Your task to perform on an android device: Open Android settings Image 0: 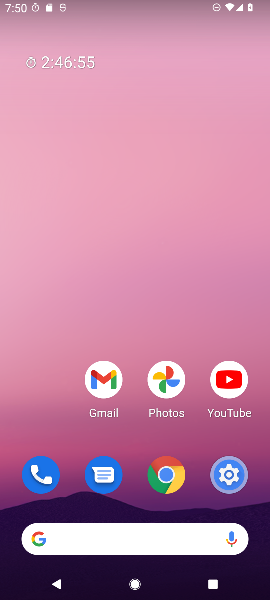
Step 0: press home button
Your task to perform on an android device: Open Android settings Image 1: 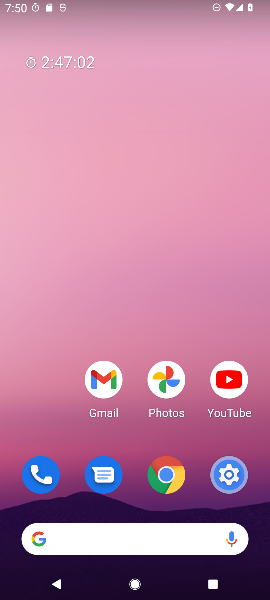
Step 1: drag from (54, 417) to (84, 98)
Your task to perform on an android device: Open Android settings Image 2: 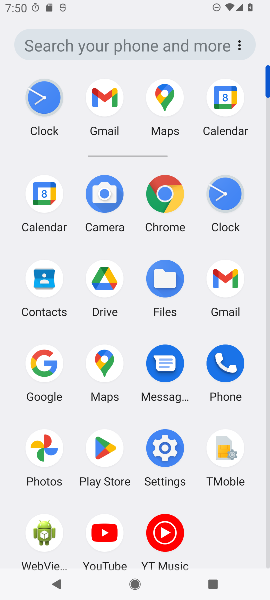
Step 2: click (173, 454)
Your task to perform on an android device: Open Android settings Image 3: 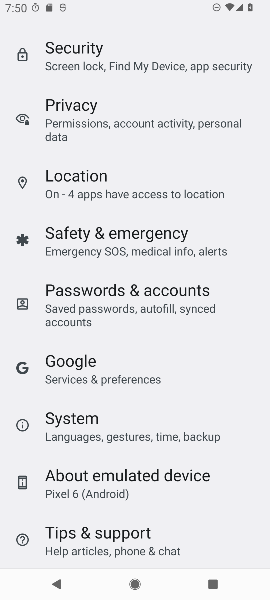
Step 3: drag from (243, 323) to (243, 374)
Your task to perform on an android device: Open Android settings Image 4: 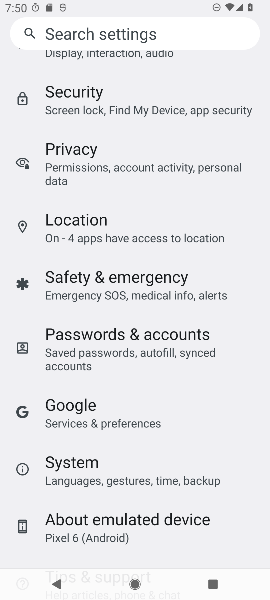
Step 4: drag from (240, 289) to (242, 350)
Your task to perform on an android device: Open Android settings Image 5: 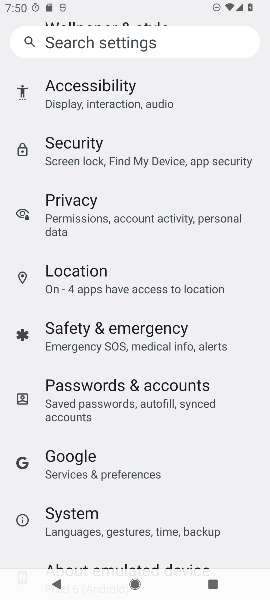
Step 5: drag from (250, 276) to (251, 354)
Your task to perform on an android device: Open Android settings Image 6: 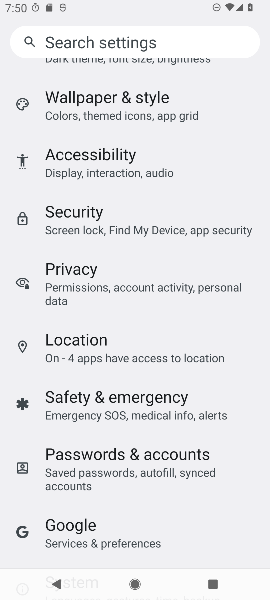
Step 6: drag from (253, 251) to (251, 336)
Your task to perform on an android device: Open Android settings Image 7: 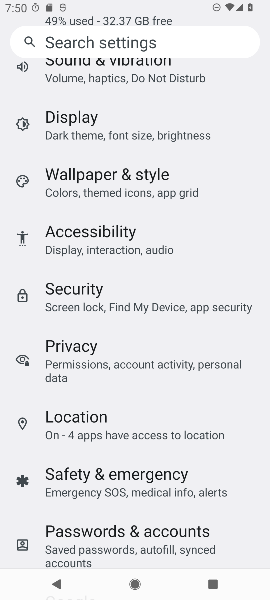
Step 7: drag from (254, 194) to (256, 309)
Your task to perform on an android device: Open Android settings Image 8: 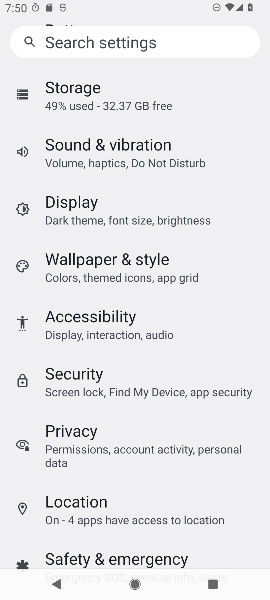
Step 8: drag from (248, 202) to (246, 281)
Your task to perform on an android device: Open Android settings Image 9: 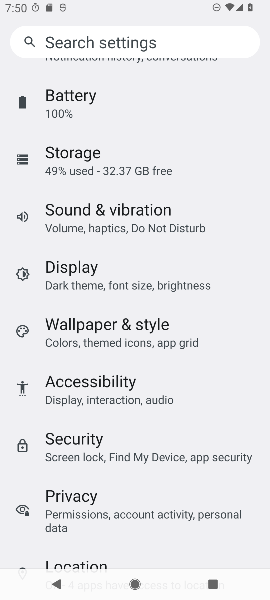
Step 9: drag from (242, 152) to (238, 284)
Your task to perform on an android device: Open Android settings Image 10: 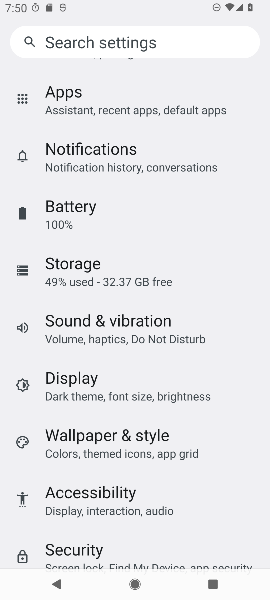
Step 10: drag from (245, 156) to (241, 293)
Your task to perform on an android device: Open Android settings Image 11: 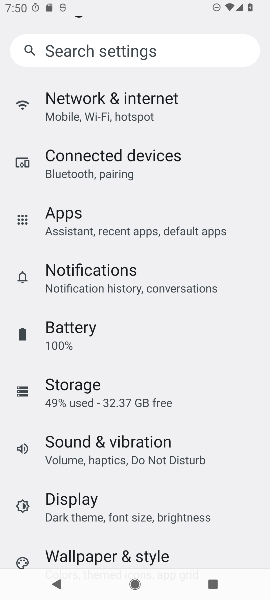
Step 11: drag from (235, 148) to (243, 306)
Your task to perform on an android device: Open Android settings Image 12: 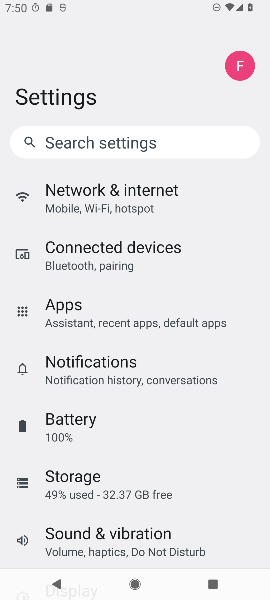
Step 12: drag from (238, 444) to (252, 344)
Your task to perform on an android device: Open Android settings Image 13: 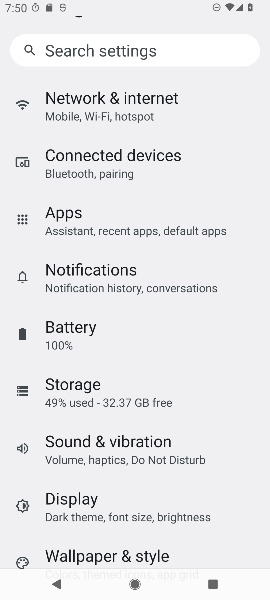
Step 13: drag from (229, 431) to (250, 298)
Your task to perform on an android device: Open Android settings Image 14: 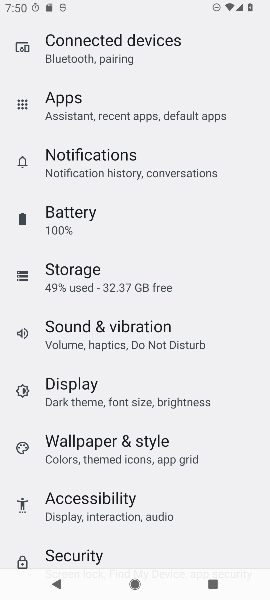
Step 14: drag from (224, 382) to (224, 278)
Your task to perform on an android device: Open Android settings Image 15: 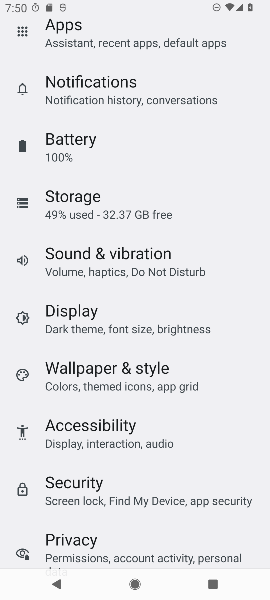
Step 15: drag from (225, 420) to (237, 302)
Your task to perform on an android device: Open Android settings Image 16: 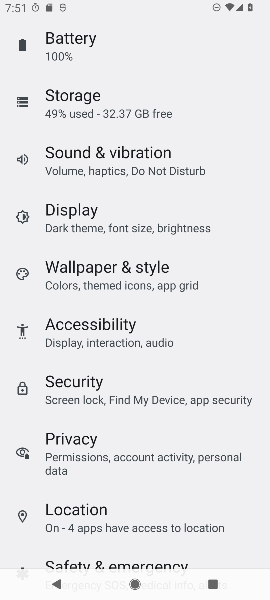
Step 16: drag from (241, 427) to (244, 319)
Your task to perform on an android device: Open Android settings Image 17: 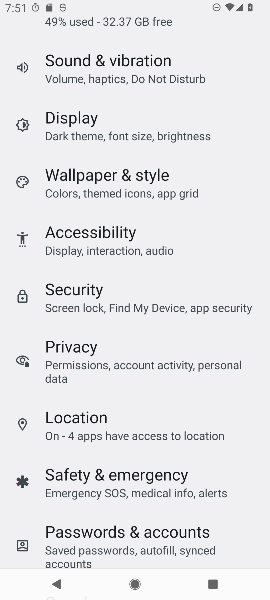
Step 17: drag from (243, 462) to (243, 345)
Your task to perform on an android device: Open Android settings Image 18: 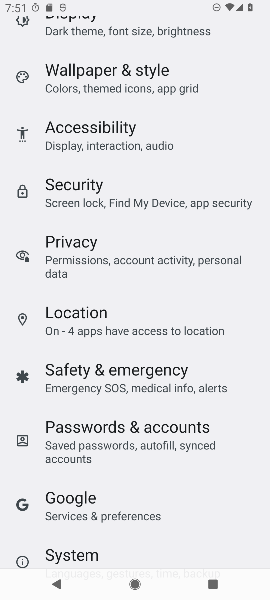
Step 18: drag from (225, 482) to (240, 355)
Your task to perform on an android device: Open Android settings Image 19: 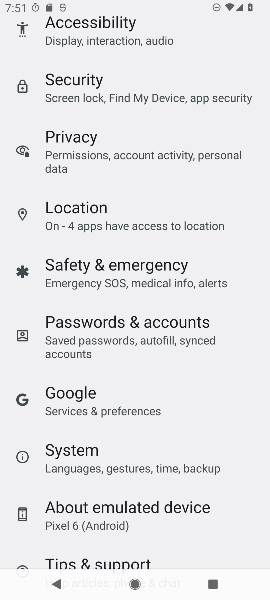
Step 19: drag from (249, 486) to (250, 398)
Your task to perform on an android device: Open Android settings Image 20: 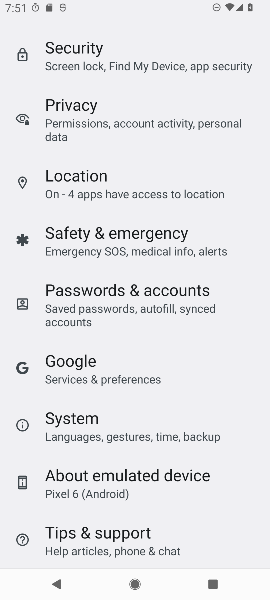
Step 20: click (218, 429)
Your task to perform on an android device: Open Android settings Image 21: 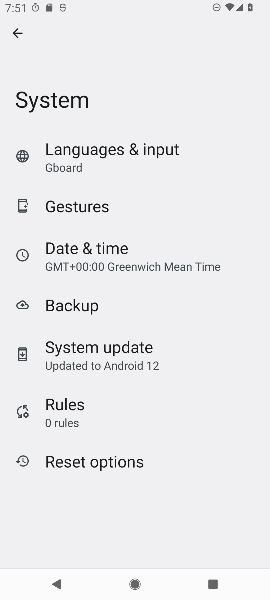
Step 21: task complete